Your task to perform on an android device: delete location history Image 0: 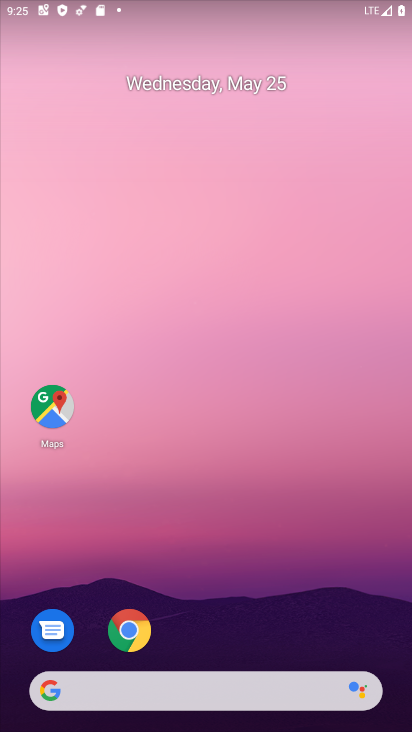
Step 0: click (45, 403)
Your task to perform on an android device: delete location history Image 1: 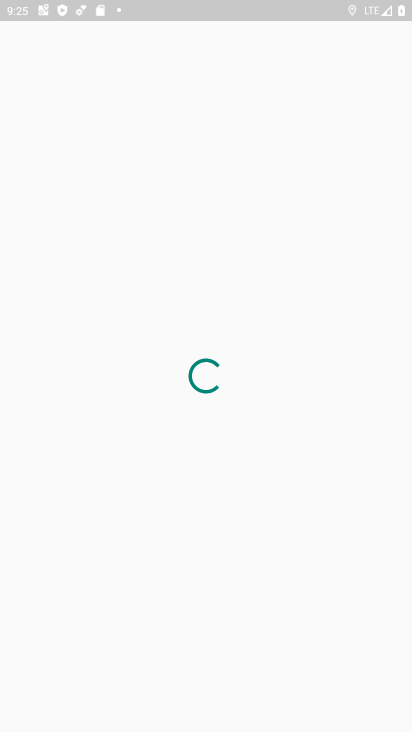
Step 1: click (44, 38)
Your task to perform on an android device: delete location history Image 2: 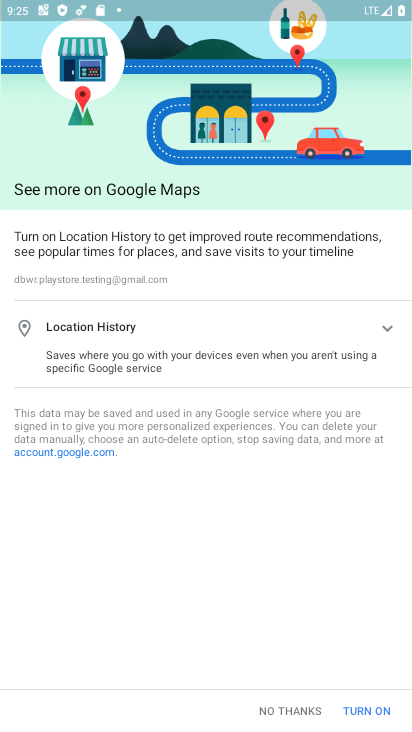
Step 2: click (288, 707)
Your task to perform on an android device: delete location history Image 3: 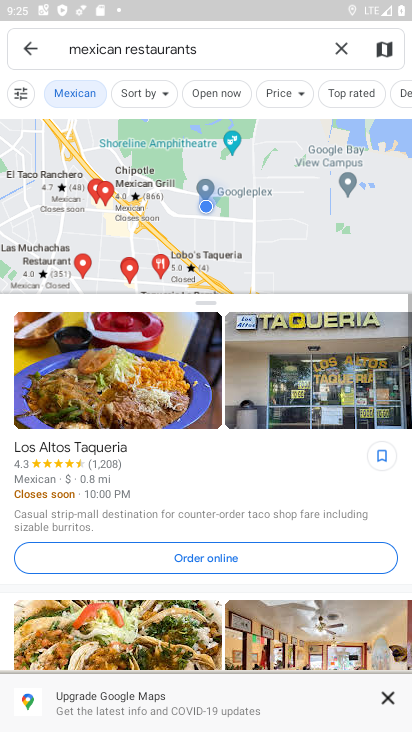
Step 3: click (34, 53)
Your task to perform on an android device: delete location history Image 4: 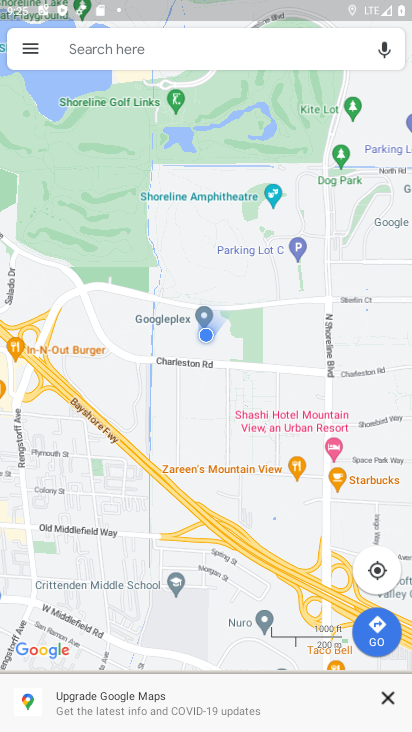
Step 4: click (33, 50)
Your task to perform on an android device: delete location history Image 5: 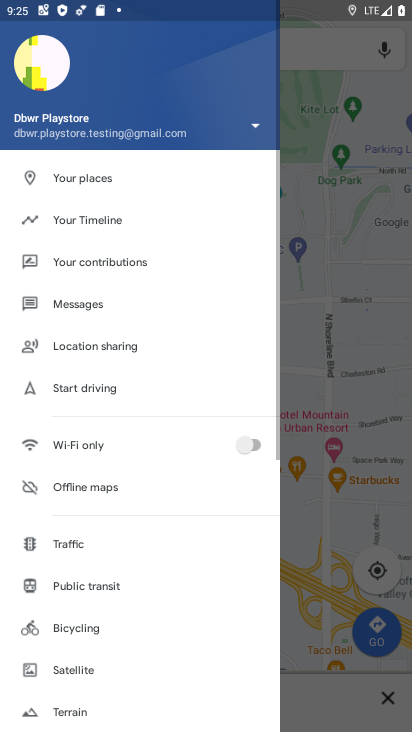
Step 5: click (94, 219)
Your task to perform on an android device: delete location history Image 6: 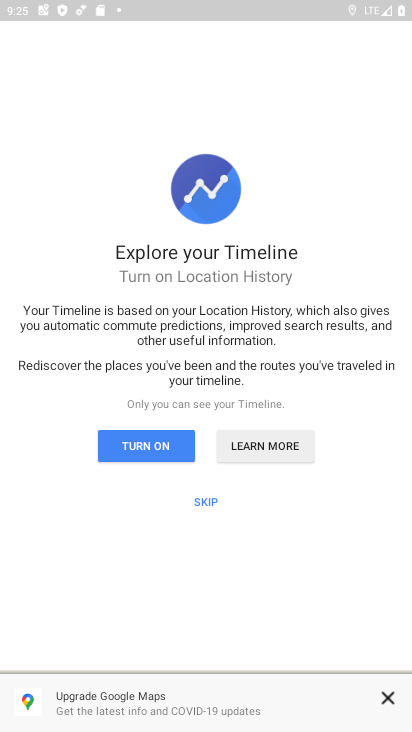
Step 6: click (197, 496)
Your task to perform on an android device: delete location history Image 7: 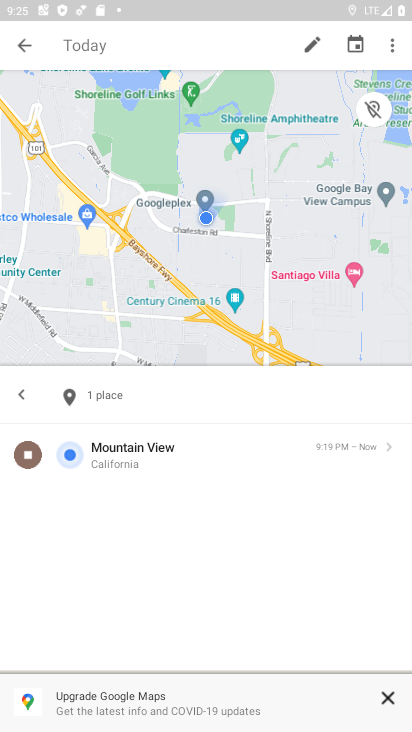
Step 7: click (394, 35)
Your task to perform on an android device: delete location history Image 8: 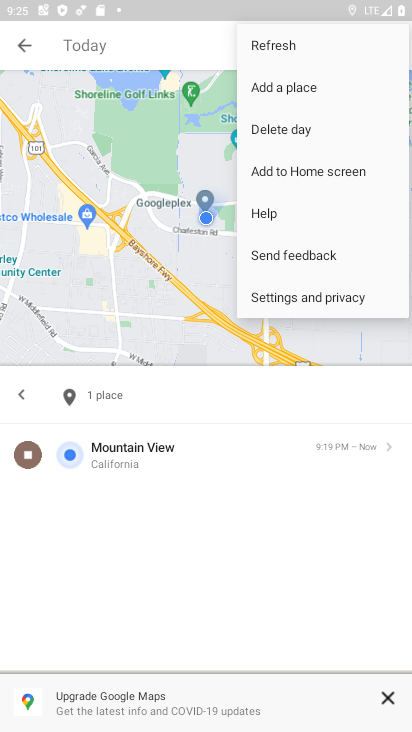
Step 8: click (269, 293)
Your task to perform on an android device: delete location history Image 9: 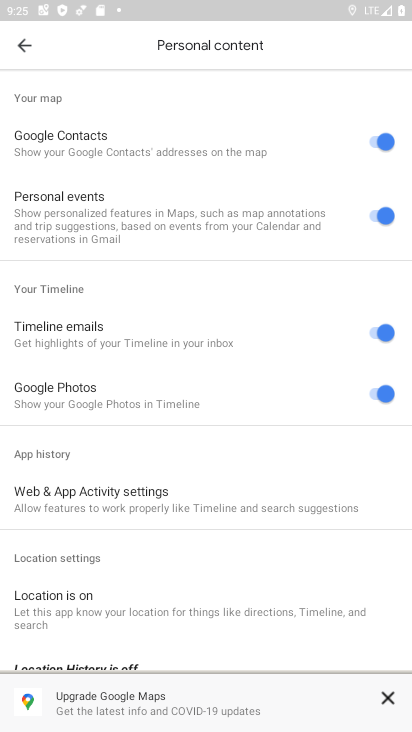
Step 9: drag from (187, 649) to (203, 230)
Your task to perform on an android device: delete location history Image 10: 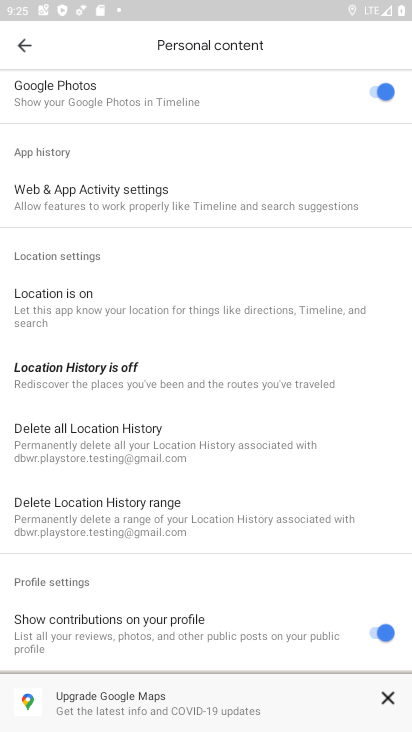
Step 10: click (125, 514)
Your task to perform on an android device: delete location history Image 11: 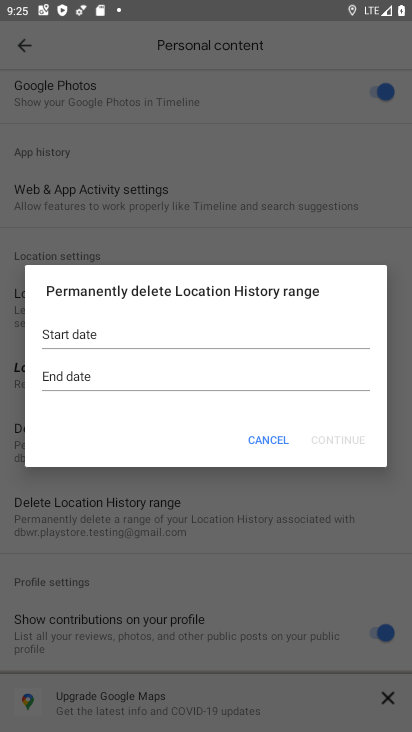
Step 11: click (257, 445)
Your task to perform on an android device: delete location history Image 12: 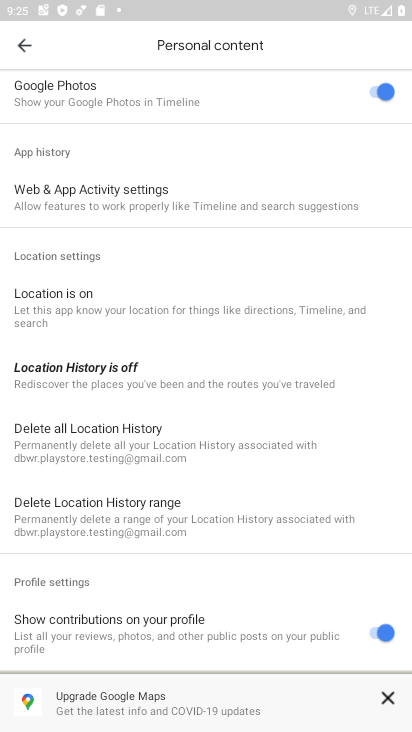
Step 12: click (174, 443)
Your task to perform on an android device: delete location history Image 13: 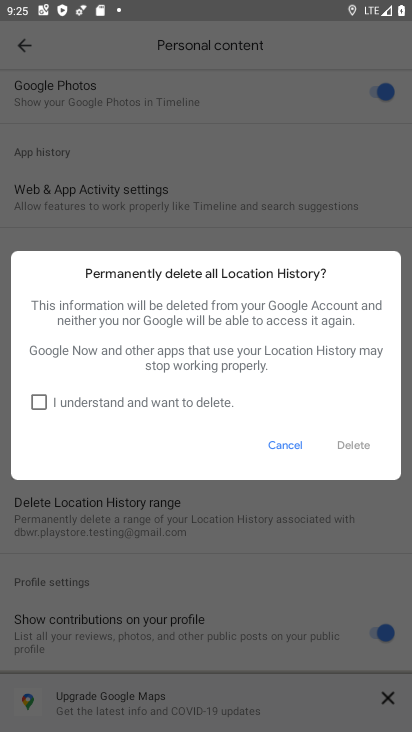
Step 13: click (38, 397)
Your task to perform on an android device: delete location history Image 14: 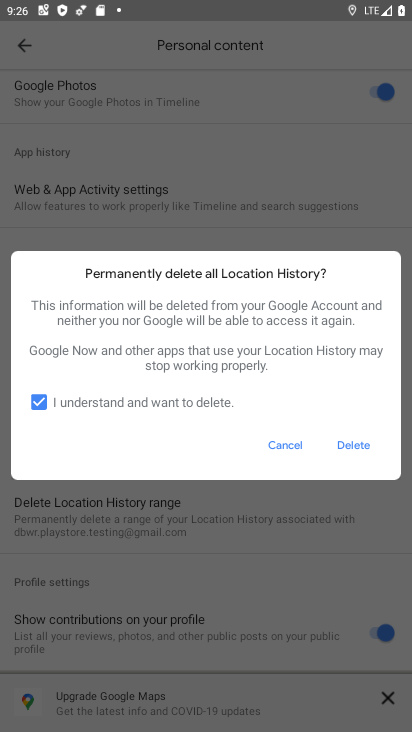
Step 14: click (347, 437)
Your task to perform on an android device: delete location history Image 15: 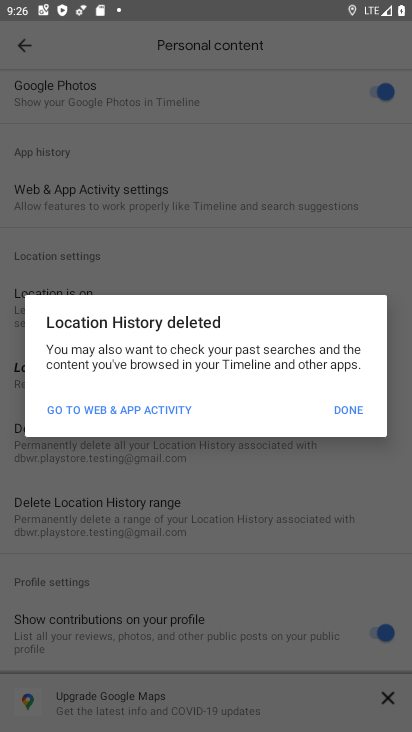
Step 15: click (352, 403)
Your task to perform on an android device: delete location history Image 16: 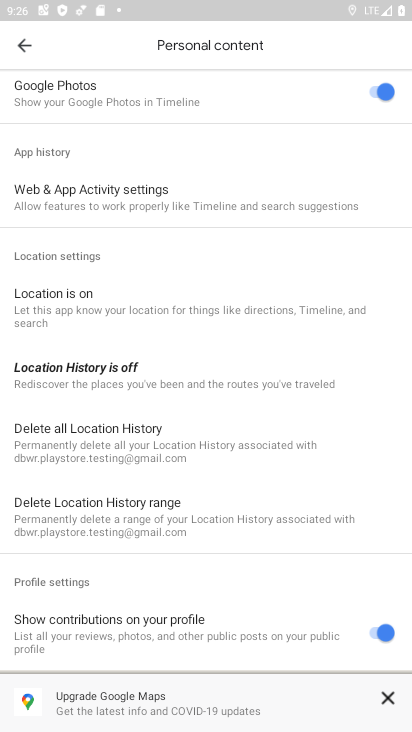
Step 16: task complete